Your task to perform on an android device: manage bookmarks in the chrome app Image 0: 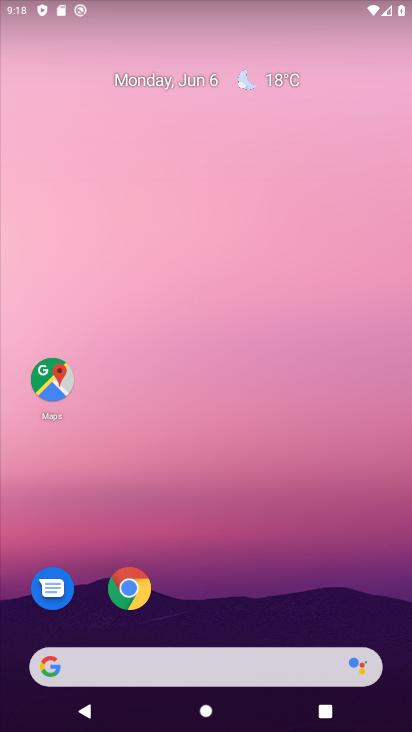
Step 0: click (135, 593)
Your task to perform on an android device: manage bookmarks in the chrome app Image 1: 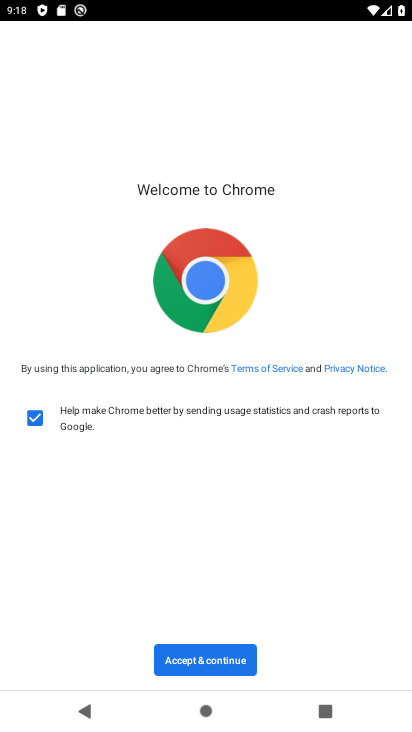
Step 1: click (211, 659)
Your task to perform on an android device: manage bookmarks in the chrome app Image 2: 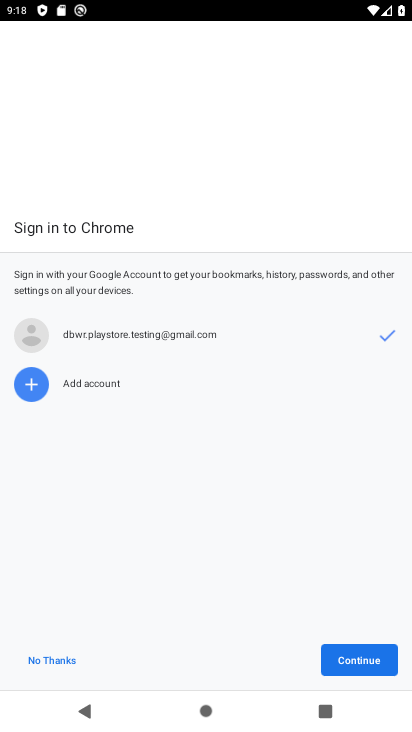
Step 2: click (345, 656)
Your task to perform on an android device: manage bookmarks in the chrome app Image 3: 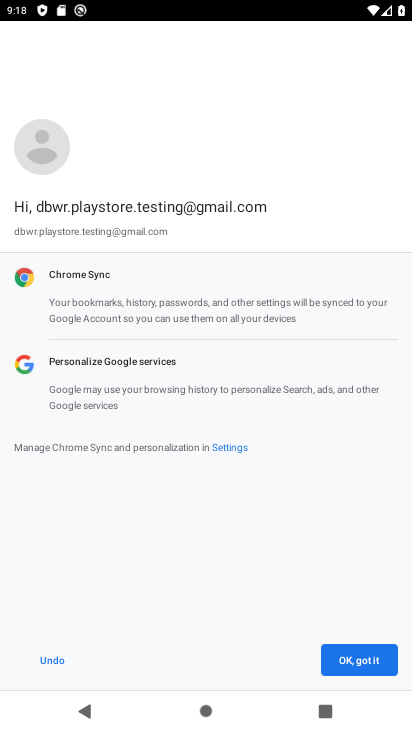
Step 3: click (352, 662)
Your task to perform on an android device: manage bookmarks in the chrome app Image 4: 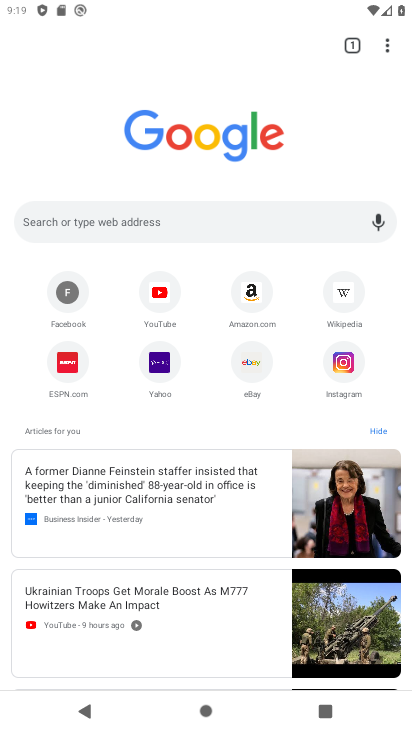
Step 4: click (387, 41)
Your task to perform on an android device: manage bookmarks in the chrome app Image 5: 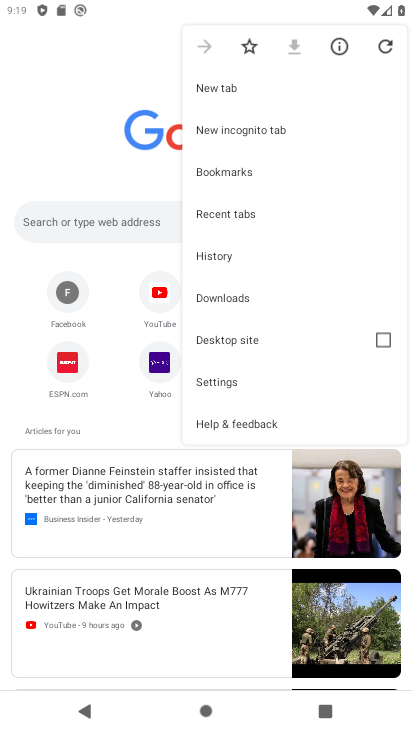
Step 5: click (232, 182)
Your task to perform on an android device: manage bookmarks in the chrome app Image 6: 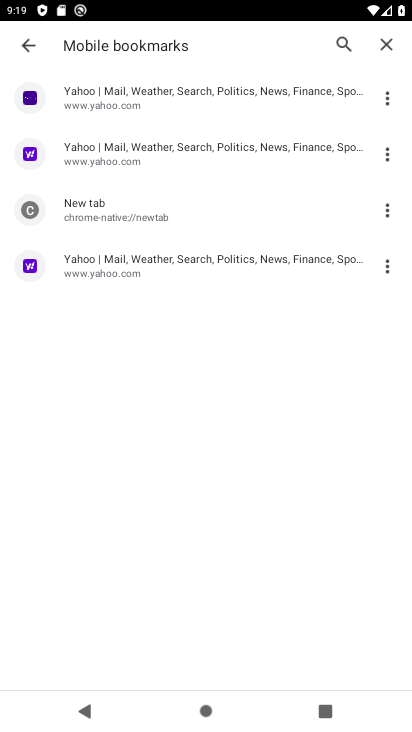
Step 6: click (384, 84)
Your task to perform on an android device: manage bookmarks in the chrome app Image 7: 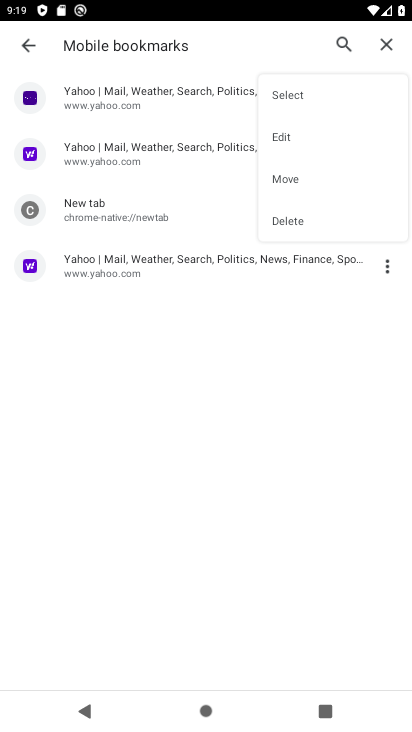
Step 7: click (291, 213)
Your task to perform on an android device: manage bookmarks in the chrome app Image 8: 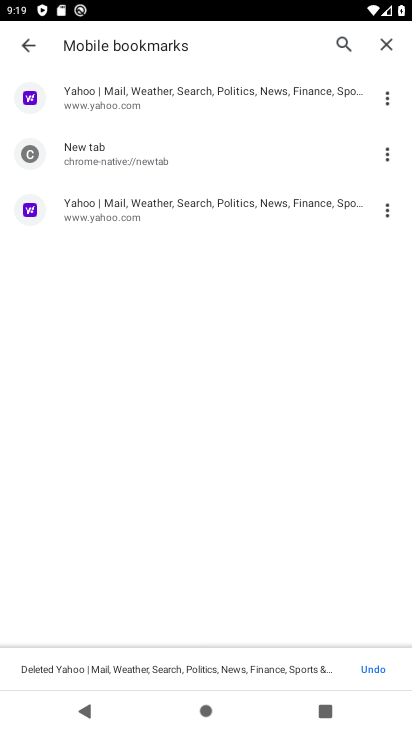
Step 8: task complete